Your task to perform on an android device: Go to Android settings Image 0: 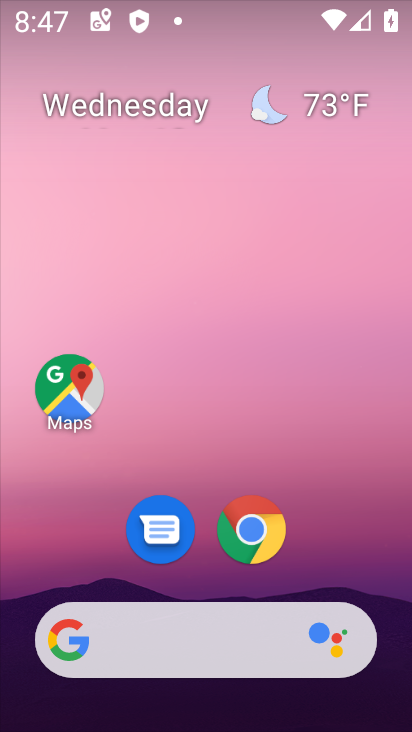
Step 0: drag from (369, 560) to (385, 369)
Your task to perform on an android device: Go to Android settings Image 1: 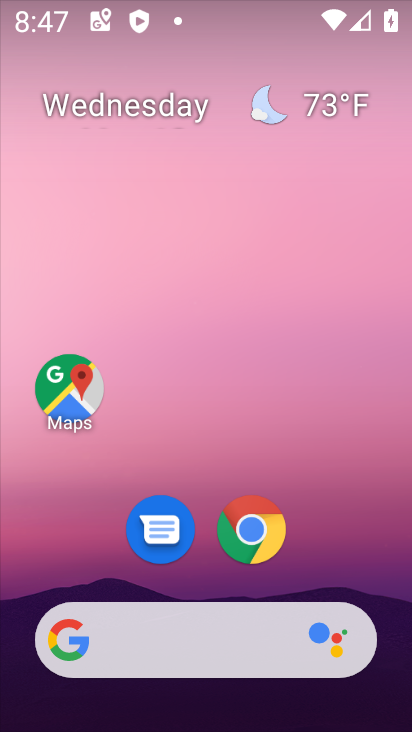
Step 1: drag from (350, 548) to (364, 309)
Your task to perform on an android device: Go to Android settings Image 2: 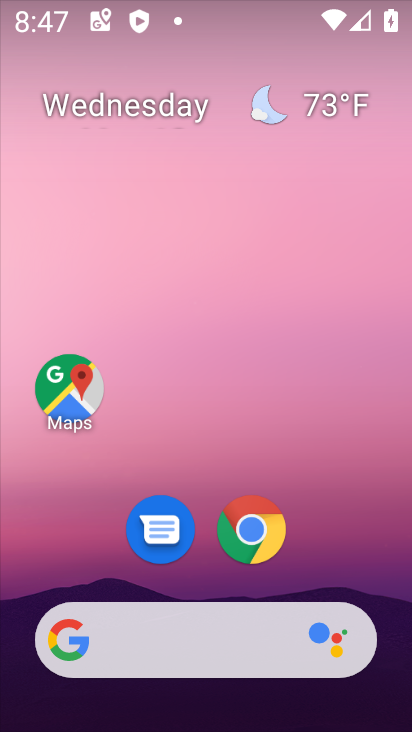
Step 2: drag from (345, 560) to (354, 232)
Your task to perform on an android device: Go to Android settings Image 3: 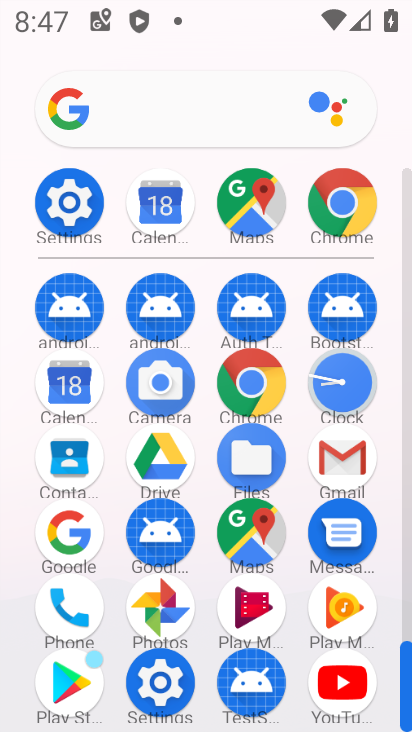
Step 3: click (81, 208)
Your task to perform on an android device: Go to Android settings Image 4: 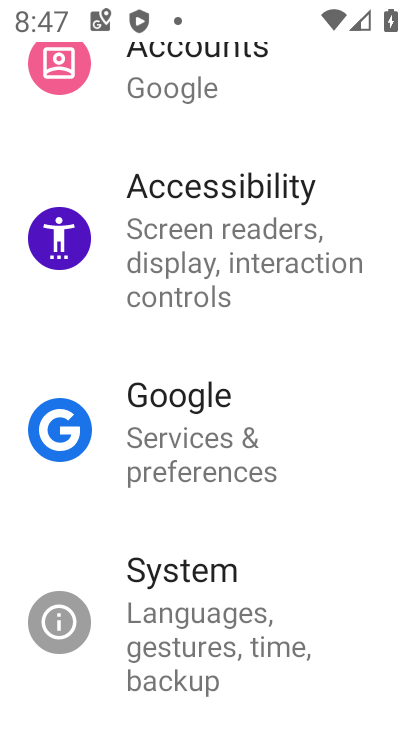
Step 4: drag from (370, 375) to (357, 555)
Your task to perform on an android device: Go to Android settings Image 5: 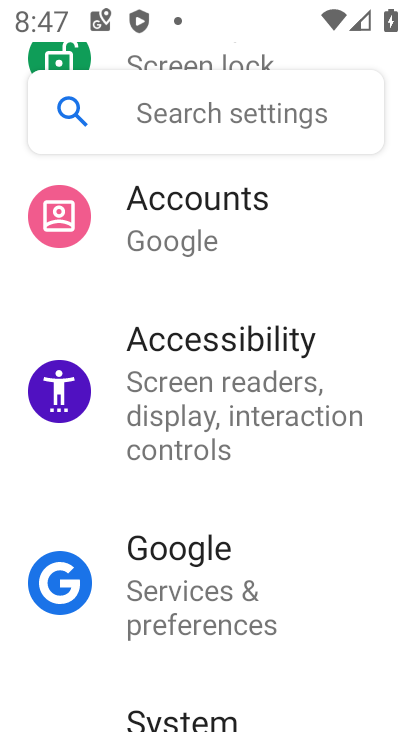
Step 5: drag from (362, 307) to (355, 493)
Your task to perform on an android device: Go to Android settings Image 6: 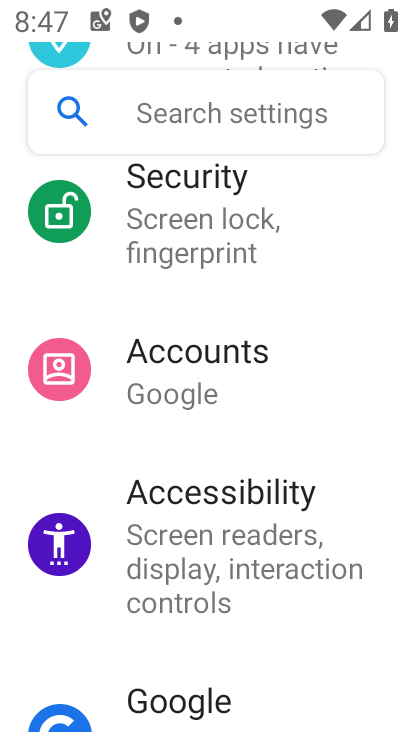
Step 6: drag from (349, 296) to (349, 476)
Your task to perform on an android device: Go to Android settings Image 7: 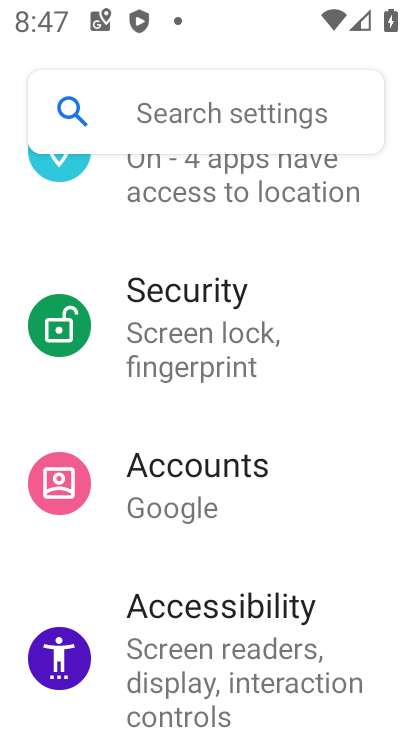
Step 7: drag from (352, 278) to (350, 419)
Your task to perform on an android device: Go to Android settings Image 8: 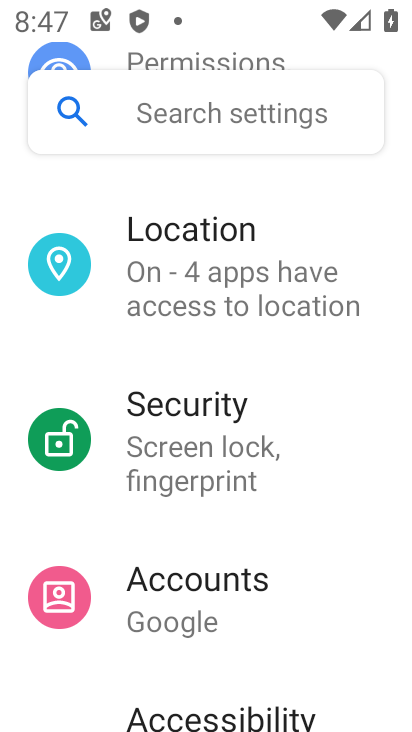
Step 8: drag from (375, 224) to (369, 451)
Your task to perform on an android device: Go to Android settings Image 9: 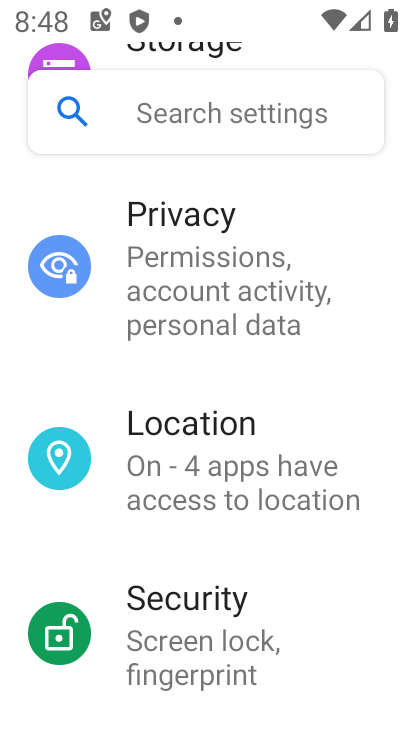
Step 9: drag from (368, 282) to (374, 457)
Your task to perform on an android device: Go to Android settings Image 10: 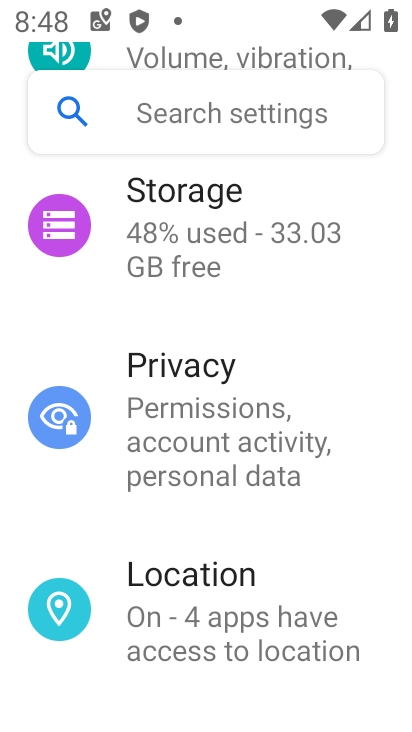
Step 10: drag from (365, 320) to (367, 450)
Your task to perform on an android device: Go to Android settings Image 11: 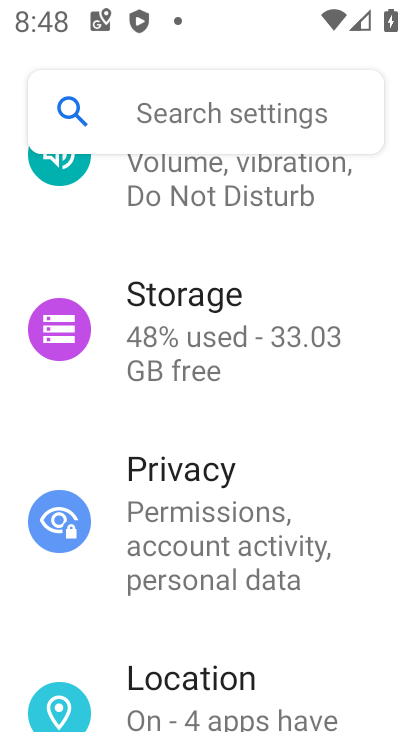
Step 11: drag from (370, 264) to (359, 436)
Your task to perform on an android device: Go to Android settings Image 12: 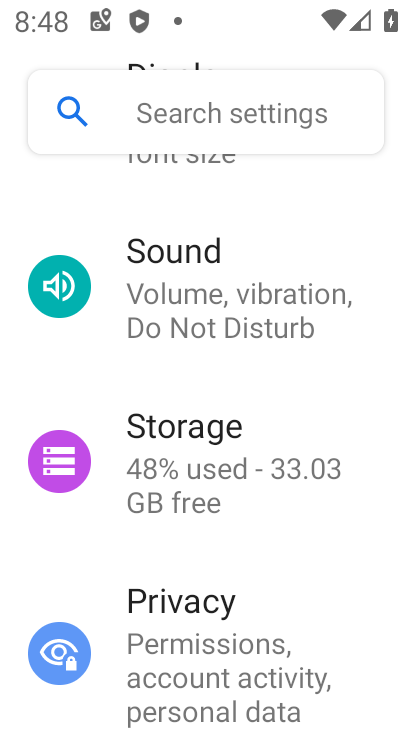
Step 12: drag from (368, 231) to (354, 427)
Your task to perform on an android device: Go to Android settings Image 13: 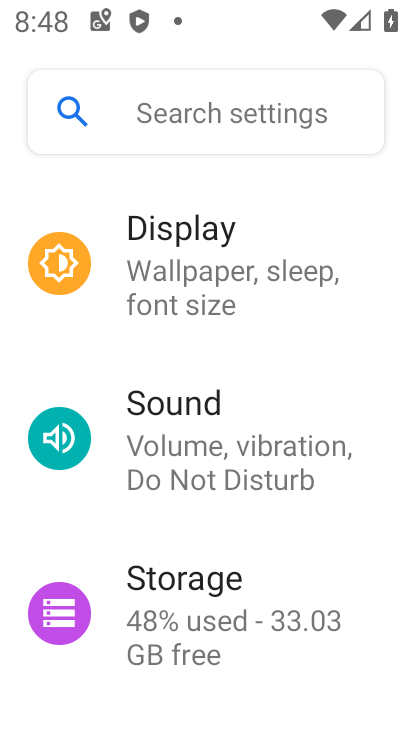
Step 13: drag from (365, 228) to (365, 367)
Your task to perform on an android device: Go to Android settings Image 14: 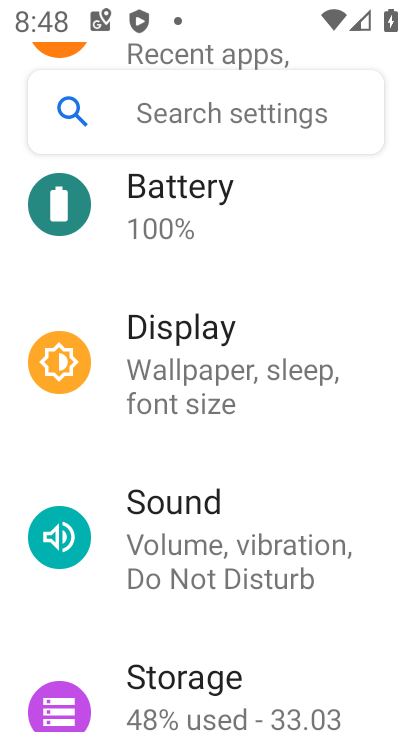
Step 14: drag from (361, 238) to (350, 401)
Your task to perform on an android device: Go to Android settings Image 15: 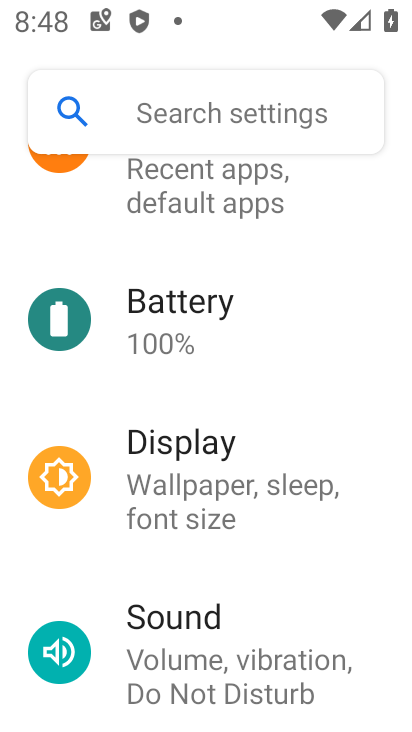
Step 15: drag from (353, 232) to (351, 333)
Your task to perform on an android device: Go to Android settings Image 16: 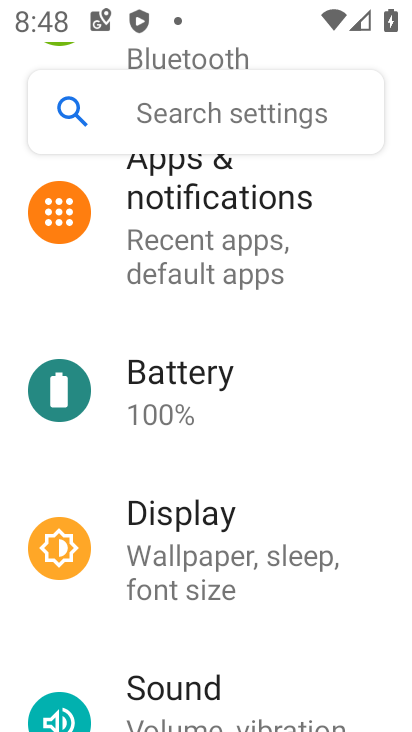
Step 16: drag from (360, 221) to (349, 344)
Your task to perform on an android device: Go to Android settings Image 17: 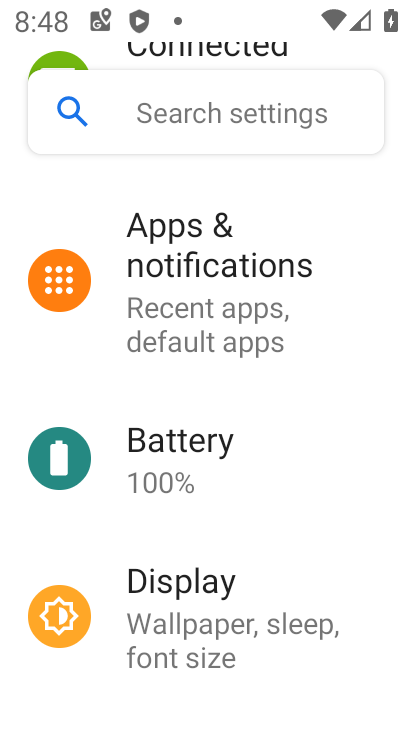
Step 17: click (354, 286)
Your task to perform on an android device: Go to Android settings Image 18: 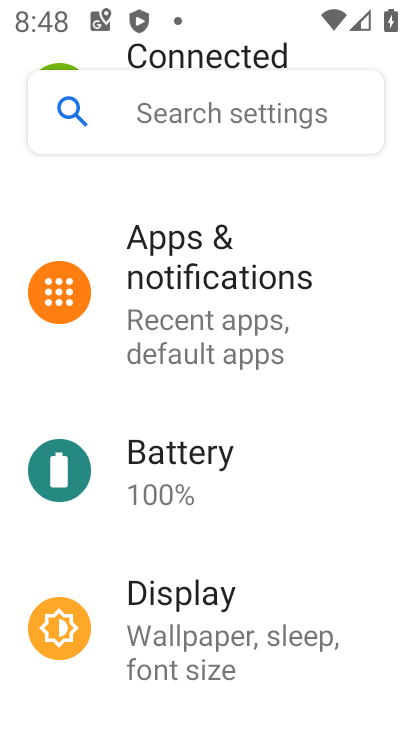
Step 18: drag from (337, 364) to (328, 441)
Your task to perform on an android device: Go to Android settings Image 19: 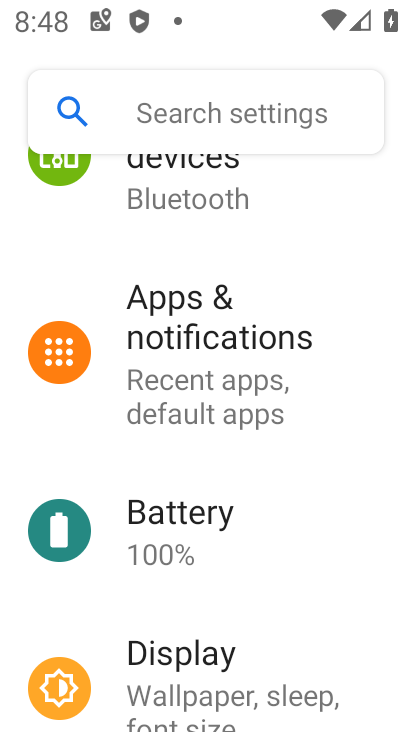
Step 19: drag from (336, 276) to (320, 473)
Your task to perform on an android device: Go to Android settings Image 20: 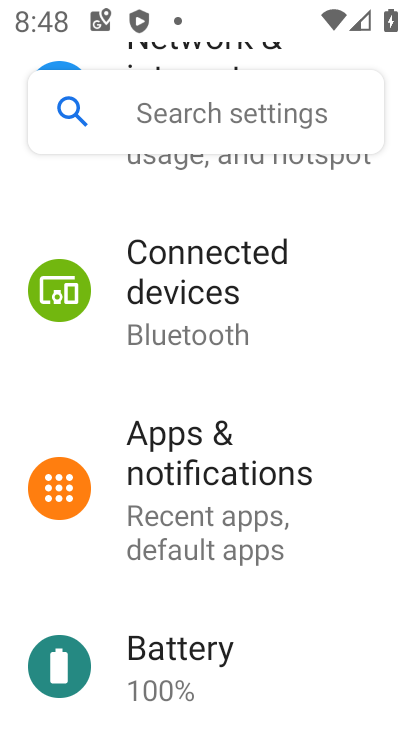
Step 20: drag from (349, 268) to (344, 416)
Your task to perform on an android device: Go to Android settings Image 21: 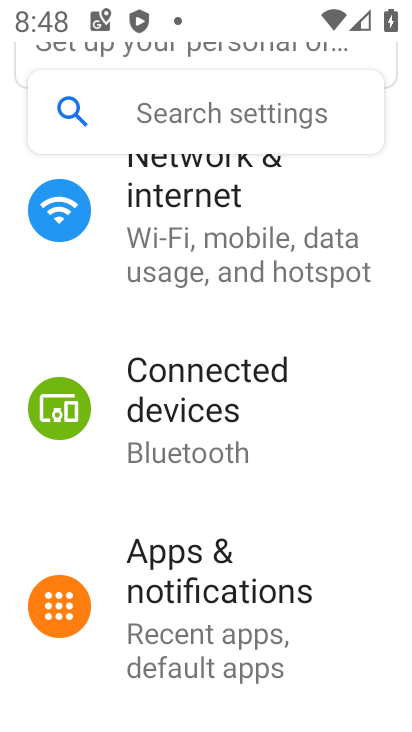
Step 21: drag from (337, 316) to (326, 455)
Your task to perform on an android device: Go to Android settings Image 22: 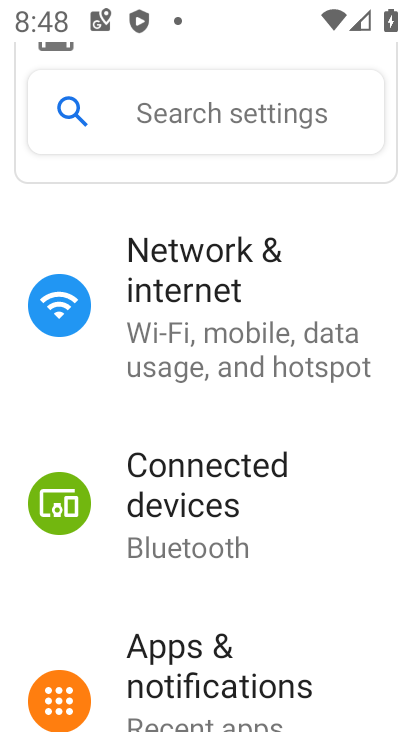
Step 22: drag from (332, 534) to (356, 384)
Your task to perform on an android device: Go to Android settings Image 23: 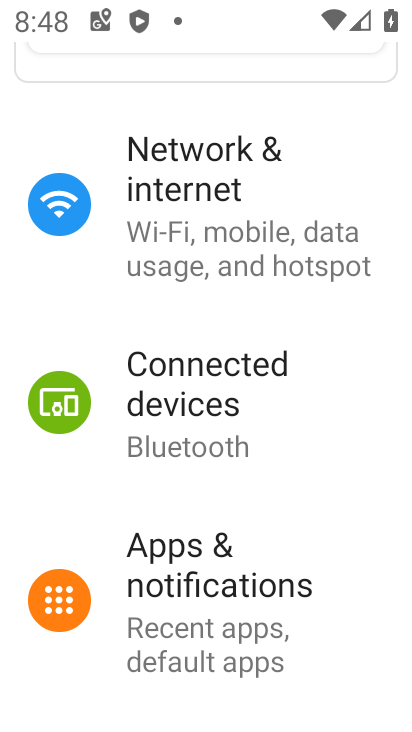
Step 23: drag from (336, 574) to (348, 388)
Your task to perform on an android device: Go to Android settings Image 24: 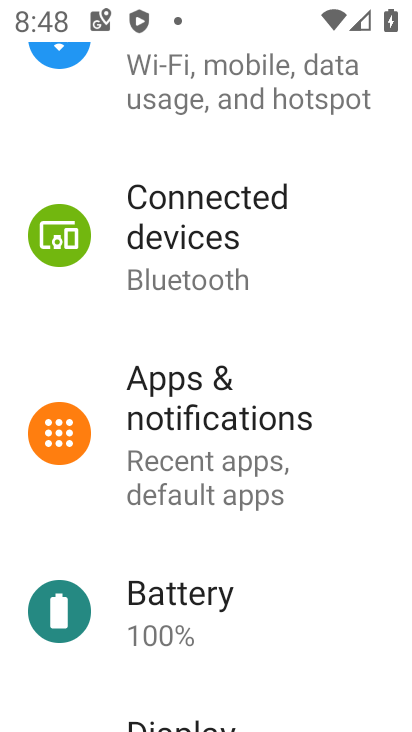
Step 24: drag from (354, 586) to (385, 318)
Your task to perform on an android device: Go to Android settings Image 25: 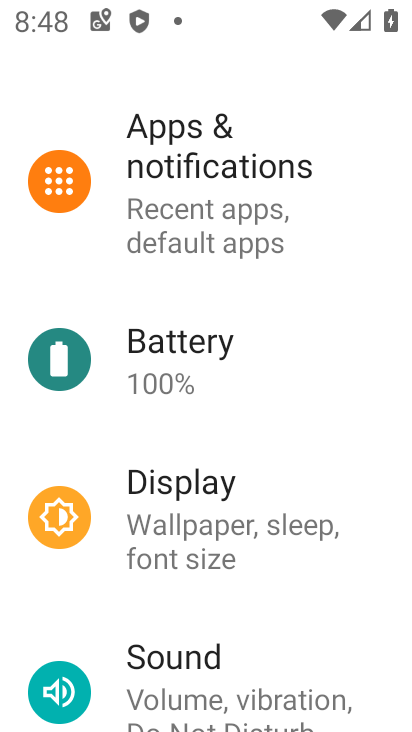
Step 25: drag from (362, 573) to (377, 367)
Your task to perform on an android device: Go to Android settings Image 26: 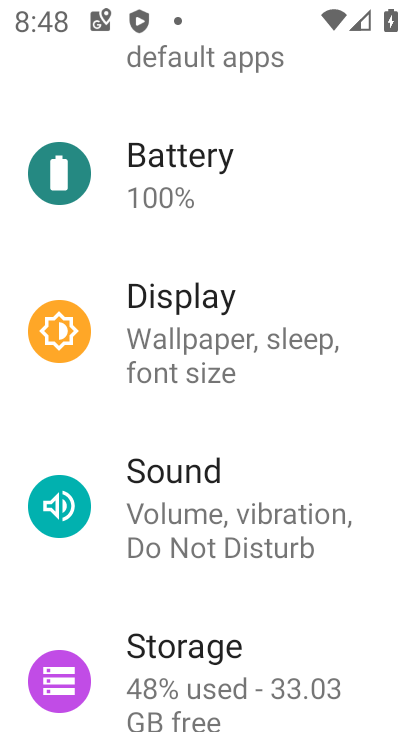
Step 26: drag from (342, 526) to (374, 279)
Your task to perform on an android device: Go to Android settings Image 27: 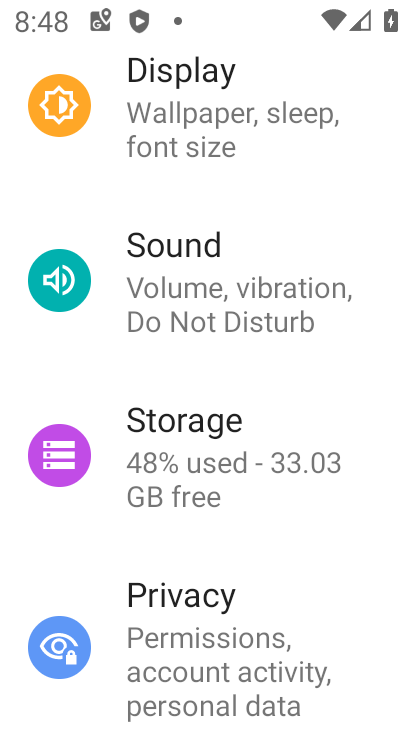
Step 27: drag from (350, 518) to (359, 402)
Your task to perform on an android device: Go to Android settings Image 28: 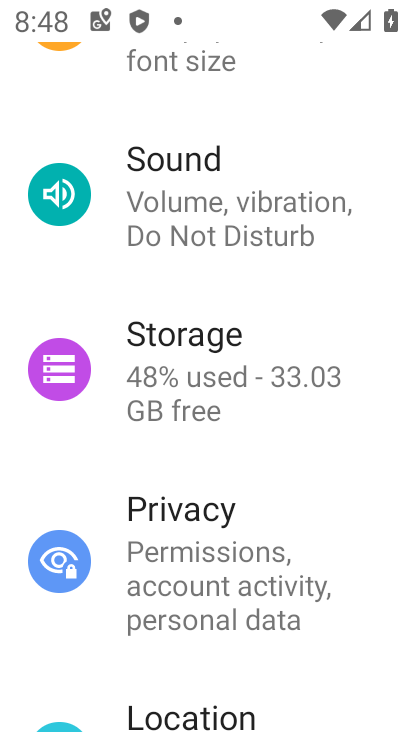
Step 28: drag from (331, 564) to (347, 352)
Your task to perform on an android device: Go to Android settings Image 29: 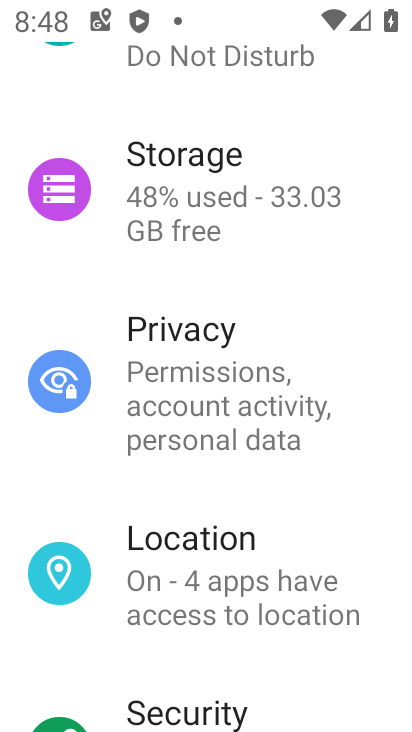
Step 29: drag from (320, 527) to (333, 371)
Your task to perform on an android device: Go to Android settings Image 30: 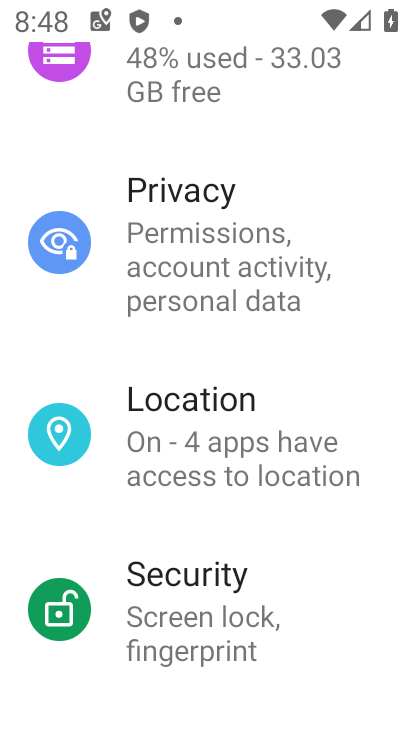
Step 30: drag from (342, 576) to (364, 368)
Your task to perform on an android device: Go to Android settings Image 31: 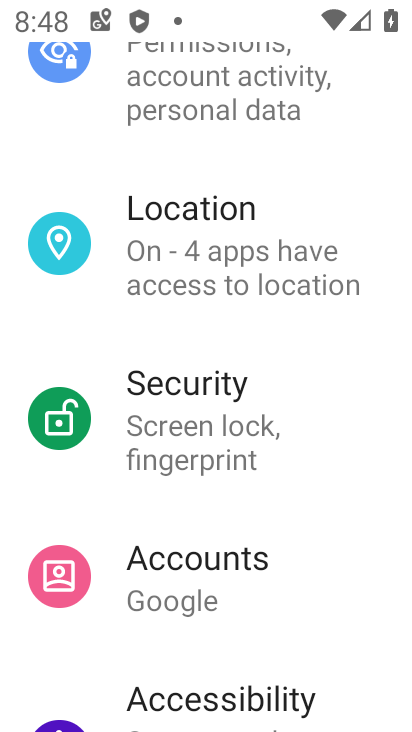
Step 31: drag from (326, 576) to (364, 384)
Your task to perform on an android device: Go to Android settings Image 32: 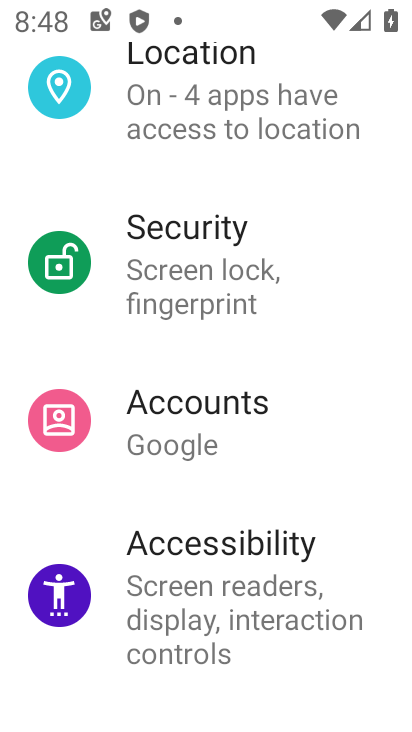
Step 32: drag from (352, 614) to (363, 389)
Your task to perform on an android device: Go to Android settings Image 33: 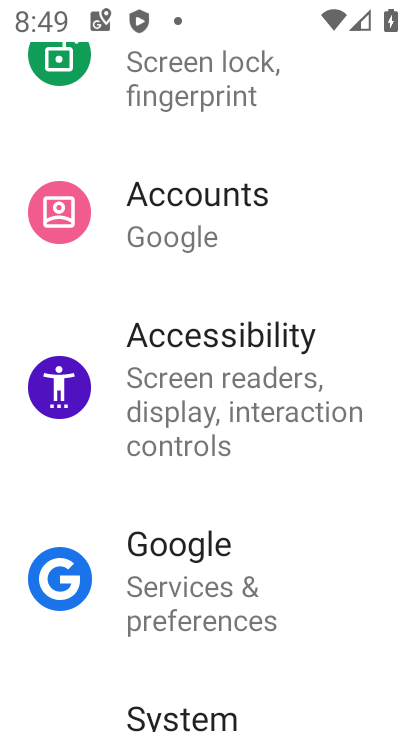
Step 33: drag from (331, 581) to (349, 444)
Your task to perform on an android device: Go to Android settings Image 34: 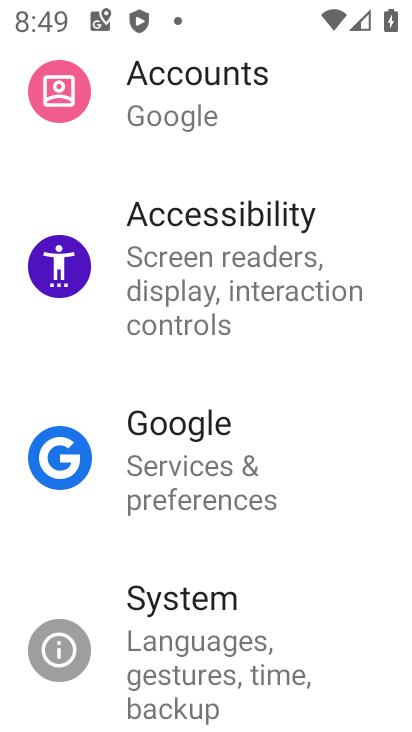
Step 34: drag from (353, 627) to (360, 453)
Your task to perform on an android device: Go to Android settings Image 35: 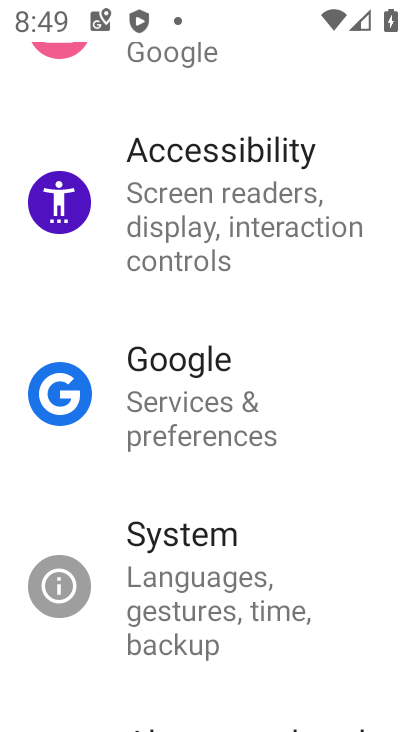
Step 35: click (270, 587)
Your task to perform on an android device: Go to Android settings Image 36: 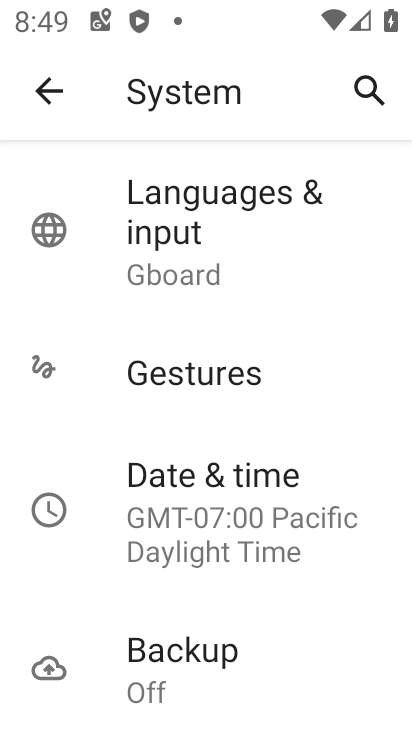
Step 36: drag from (319, 628) to (349, 362)
Your task to perform on an android device: Go to Android settings Image 37: 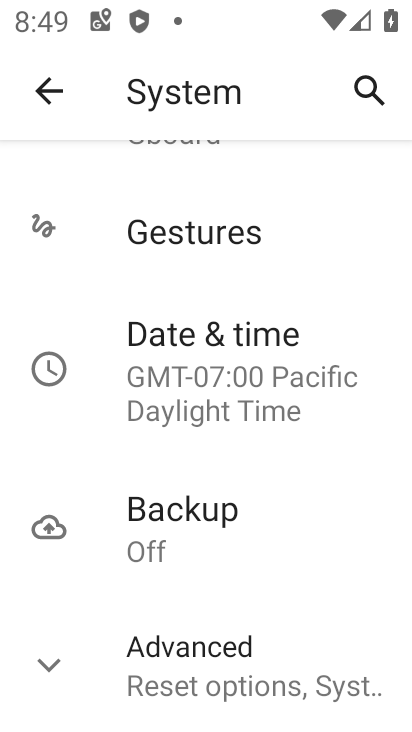
Step 37: click (261, 644)
Your task to perform on an android device: Go to Android settings Image 38: 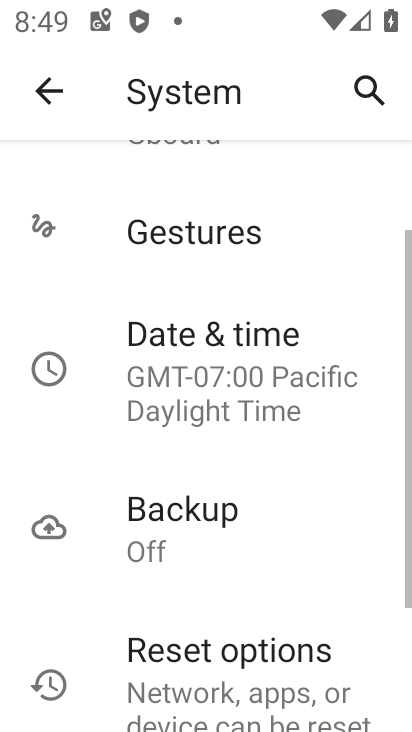
Step 38: task complete